Your task to perform on an android device: refresh tabs in the chrome app Image 0: 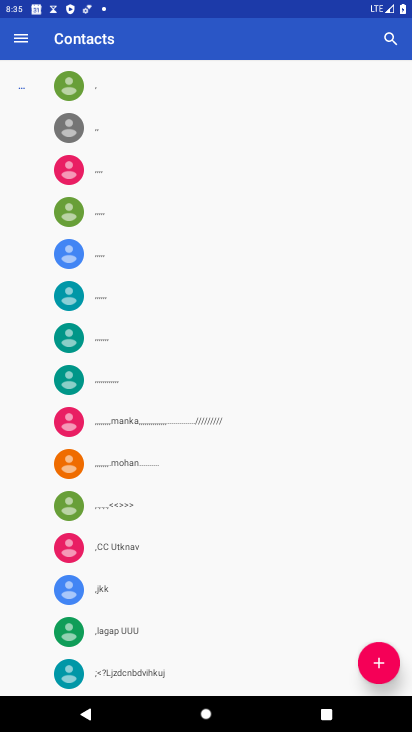
Step 0: press home button
Your task to perform on an android device: refresh tabs in the chrome app Image 1: 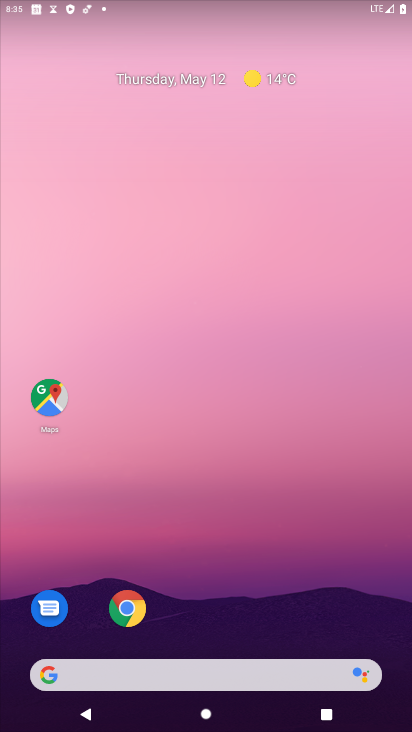
Step 1: click (124, 608)
Your task to perform on an android device: refresh tabs in the chrome app Image 2: 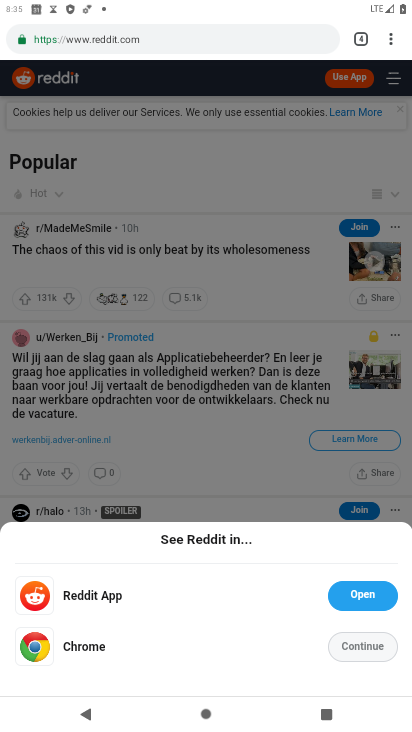
Step 2: click (391, 37)
Your task to perform on an android device: refresh tabs in the chrome app Image 3: 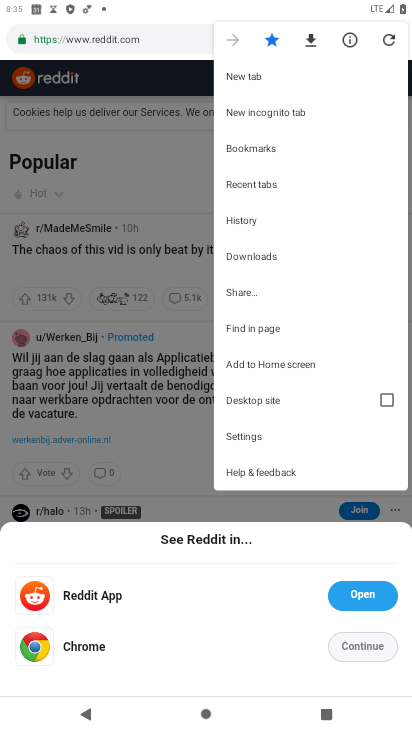
Step 3: click (389, 39)
Your task to perform on an android device: refresh tabs in the chrome app Image 4: 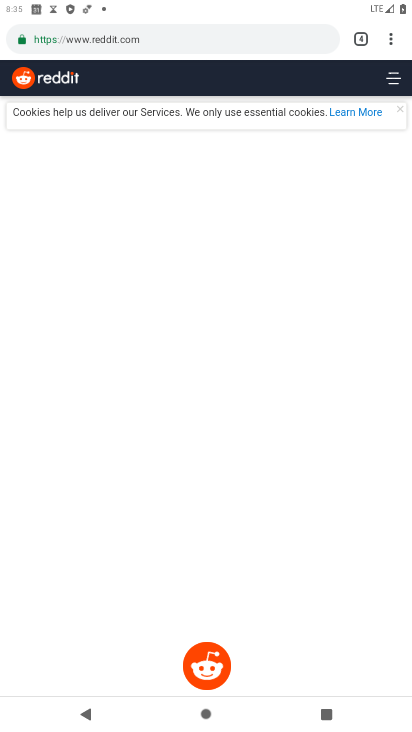
Step 4: task complete